Your task to perform on an android device: allow cookies in the chrome app Image 0: 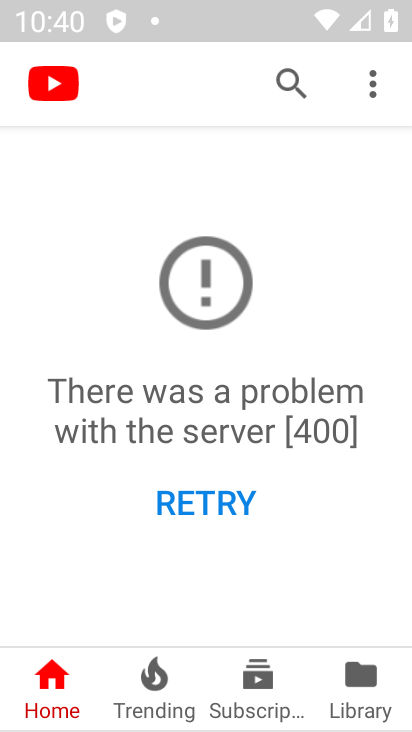
Step 0: press home button
Your task to perform on an android device: allow cookies in the chrome app Image 1: 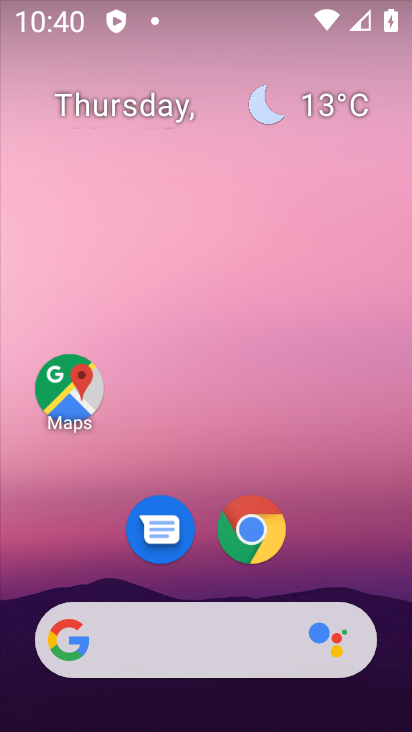
Step 1: click (238, 514)
Your task to perform on an android device: allow cookies in the chrome app Image 2: 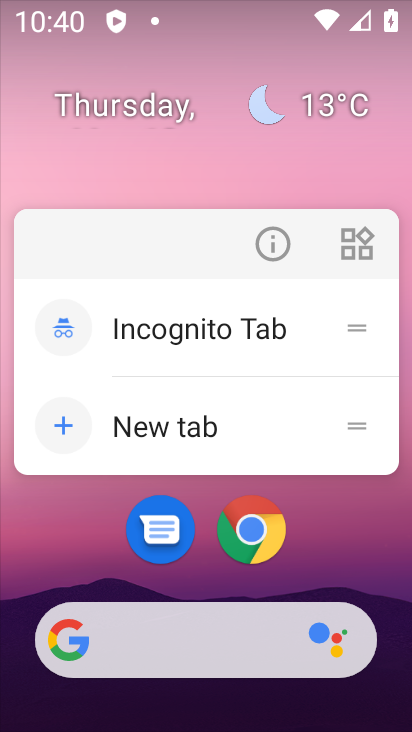
Step 2: click (238, 514)
Your task to perform on an android device: allow cookies in the chrome app Image 3: 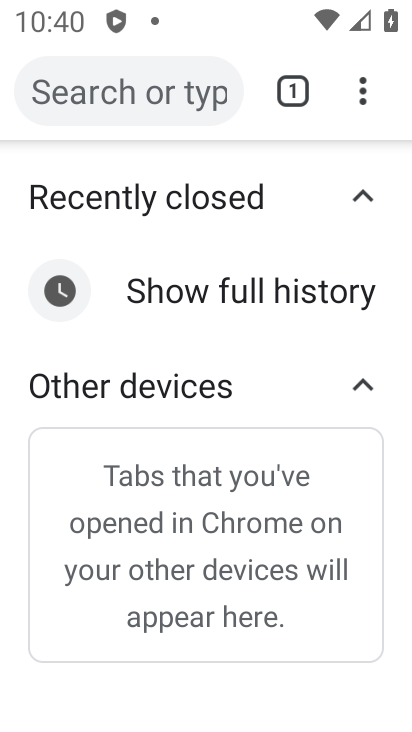
Step 3: click (368, 108)
Your task to perform on an android device: allow cookies in the chrome app Image 4: 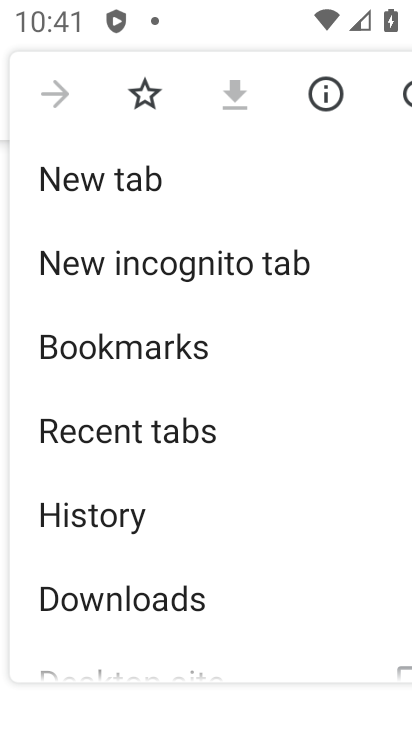
Step 4: drag from (193, 560) to (206, 315)
Your task to perform on an android device: allow cookies in the chrome app Image 5: 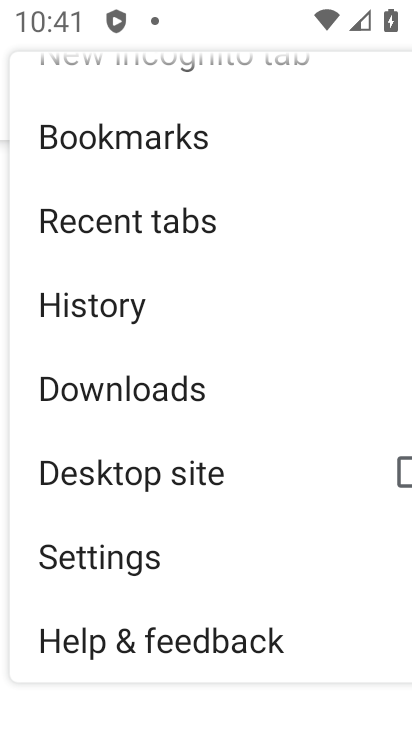
Step 5: click (142, 560)
Your task to perform on an android device: allow cookies in the chrome app Image 6: 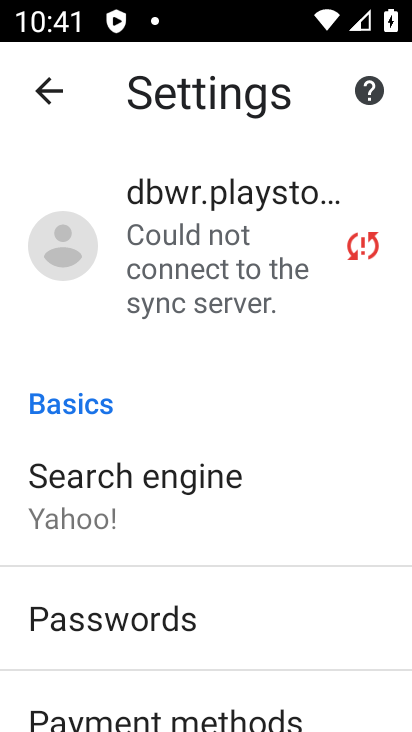
Step 6: drag from (174, 513) to (168, 274)
Your task to perform on an android device: allow cookies in the chrome app Image 7: 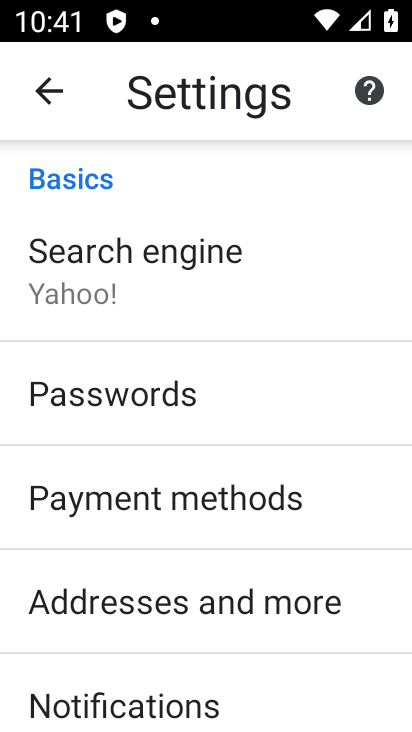
Step 7: drag from (151, 609) to (157, 258)
Your task to perform on an android device: allow cookies in the chrome app Image 8: 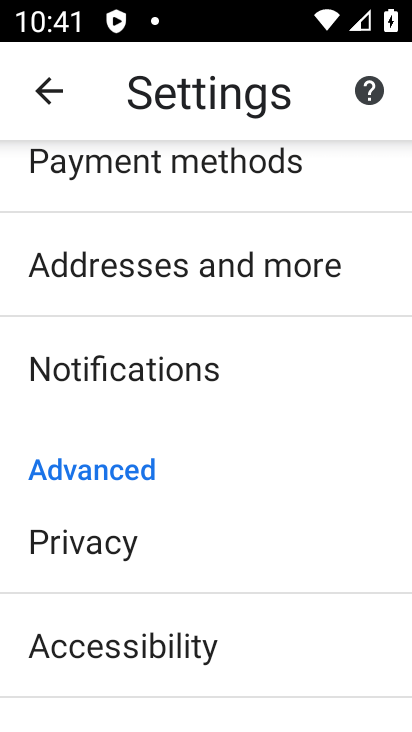
Step 8: drag from (110, 606) to (165, 356)
Your task to perform on an android device: allow cookies in the chrome app Image 9: 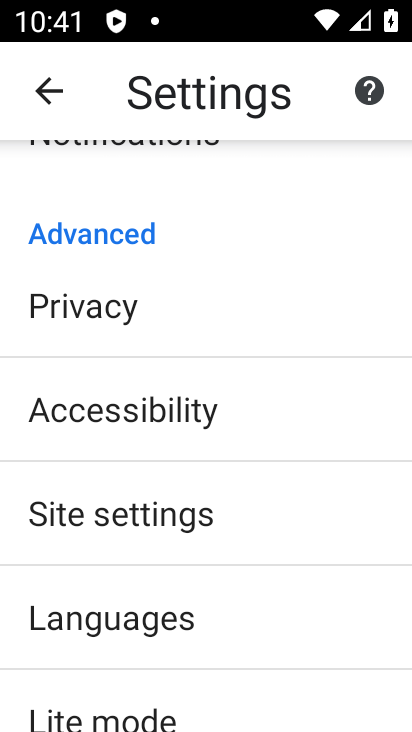
Step 9: drag from (127, 678) to (123, 411)
Your task to perform on an android device: allow cookies in the chrome app Image 10: 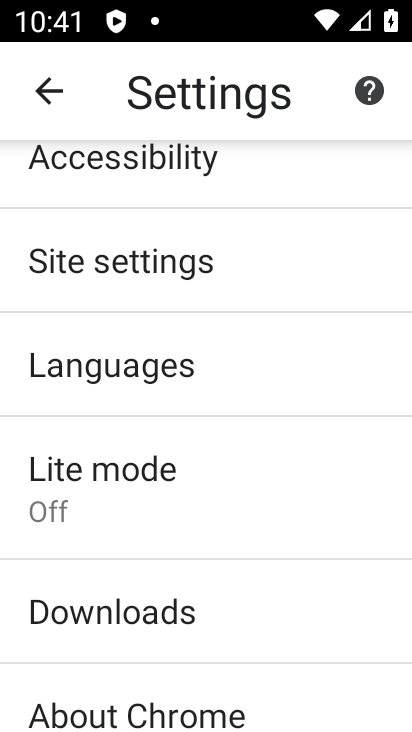
Step 10: click (173, 277)
Your task to perform on an android device: allow cookies in the chrome app Image 11: 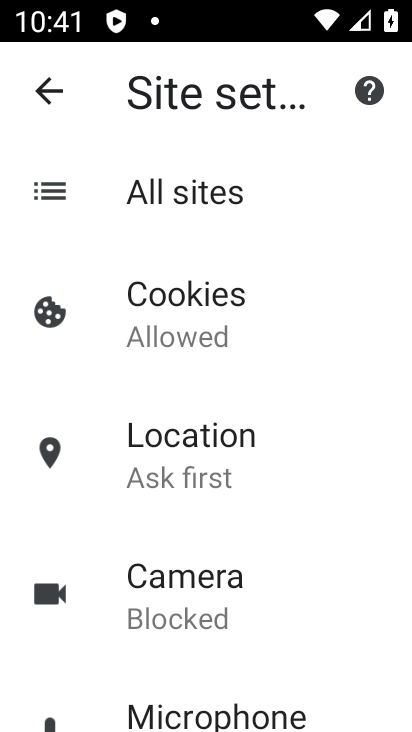
Step 11: click (206, 314)
Your task to perform on an android device: allow cookies in the chrome app Image 12: 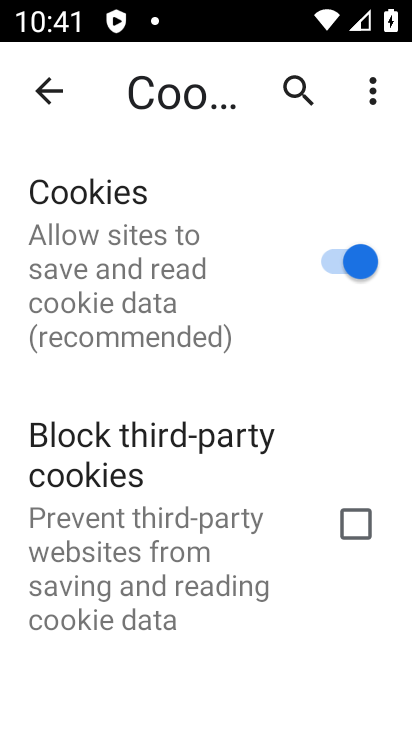
Step 12: task complete